Your task to perform on an android device: turn off smart reply in the gmail app Image 0: 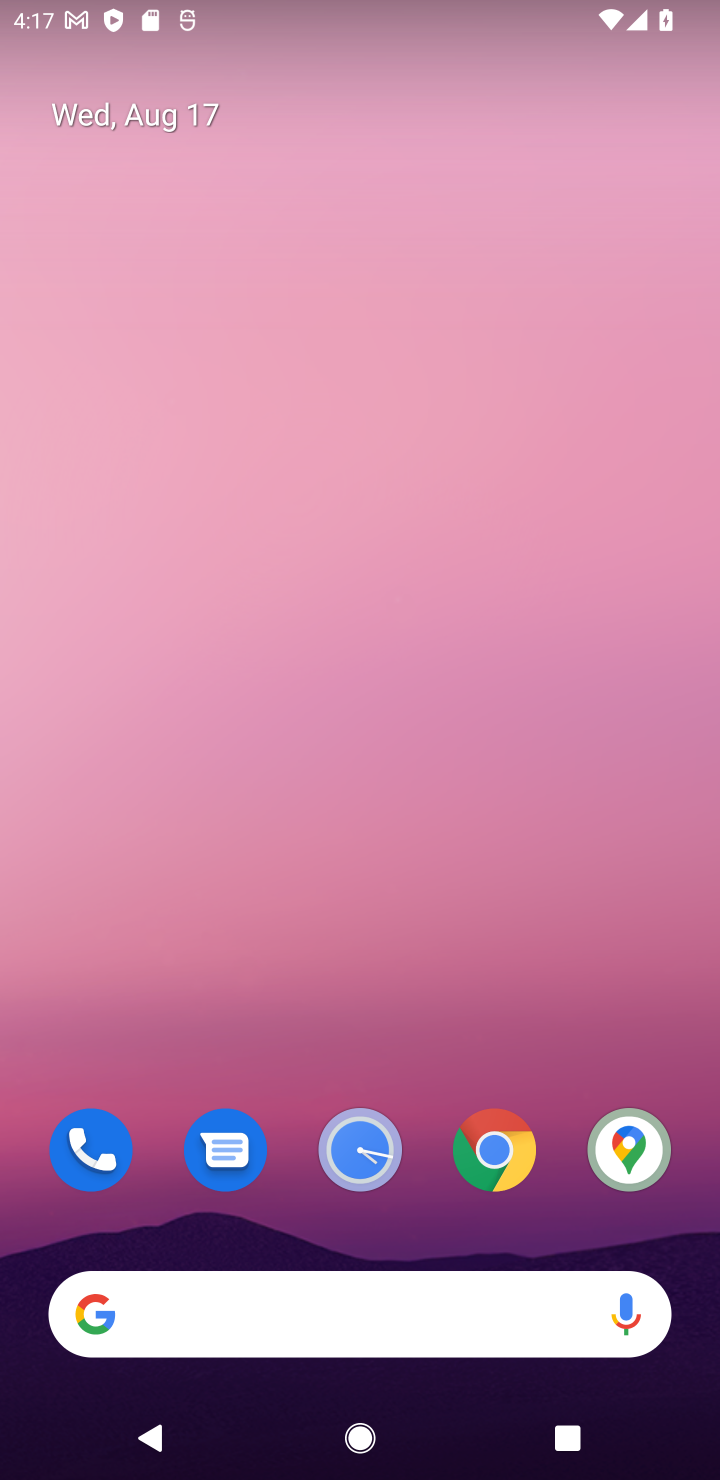
Step 0: drag from (550, 1218) to (380, 45)
Your task to perform on an android device: turn off smart reply in the gmail app Image 1: 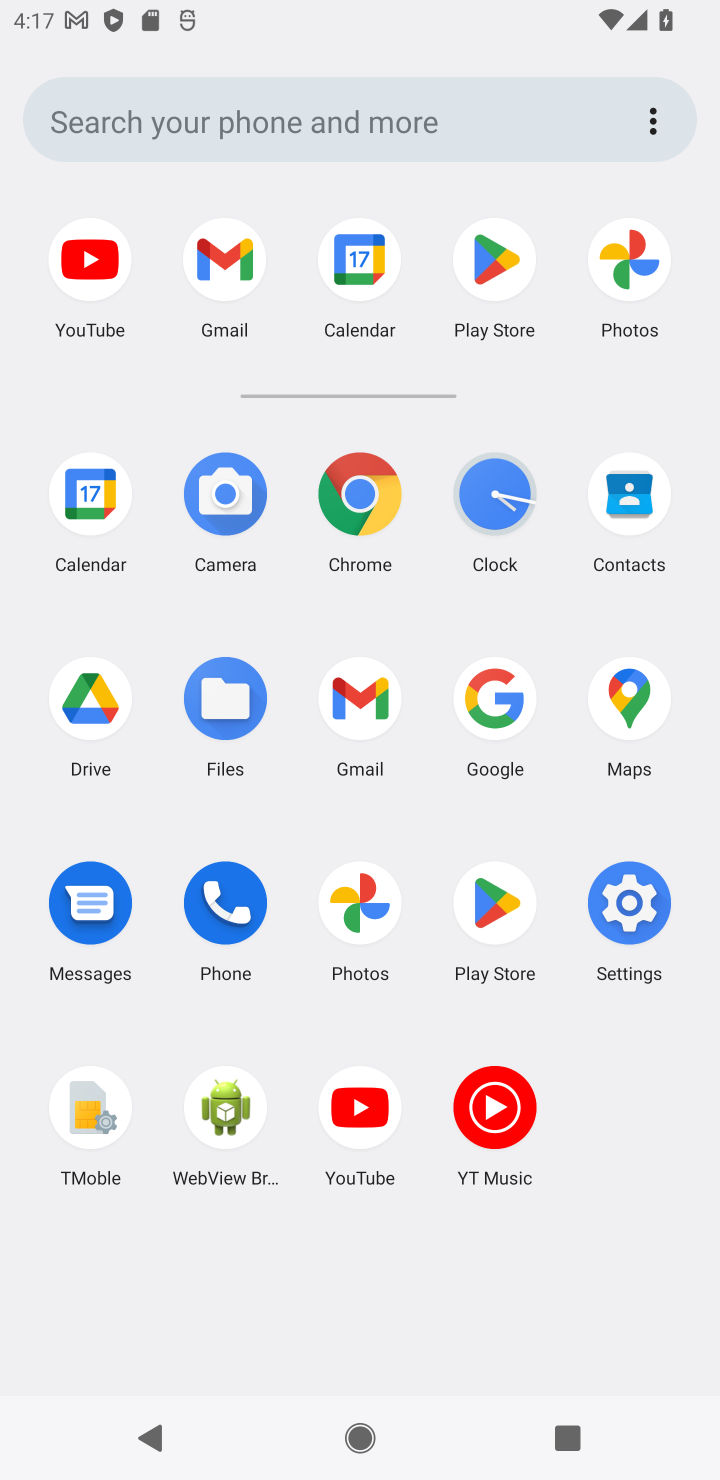
Step 1: click (362, 711)
Your task to perform on an android device: turn off smart reply in the gmail app Image 2: 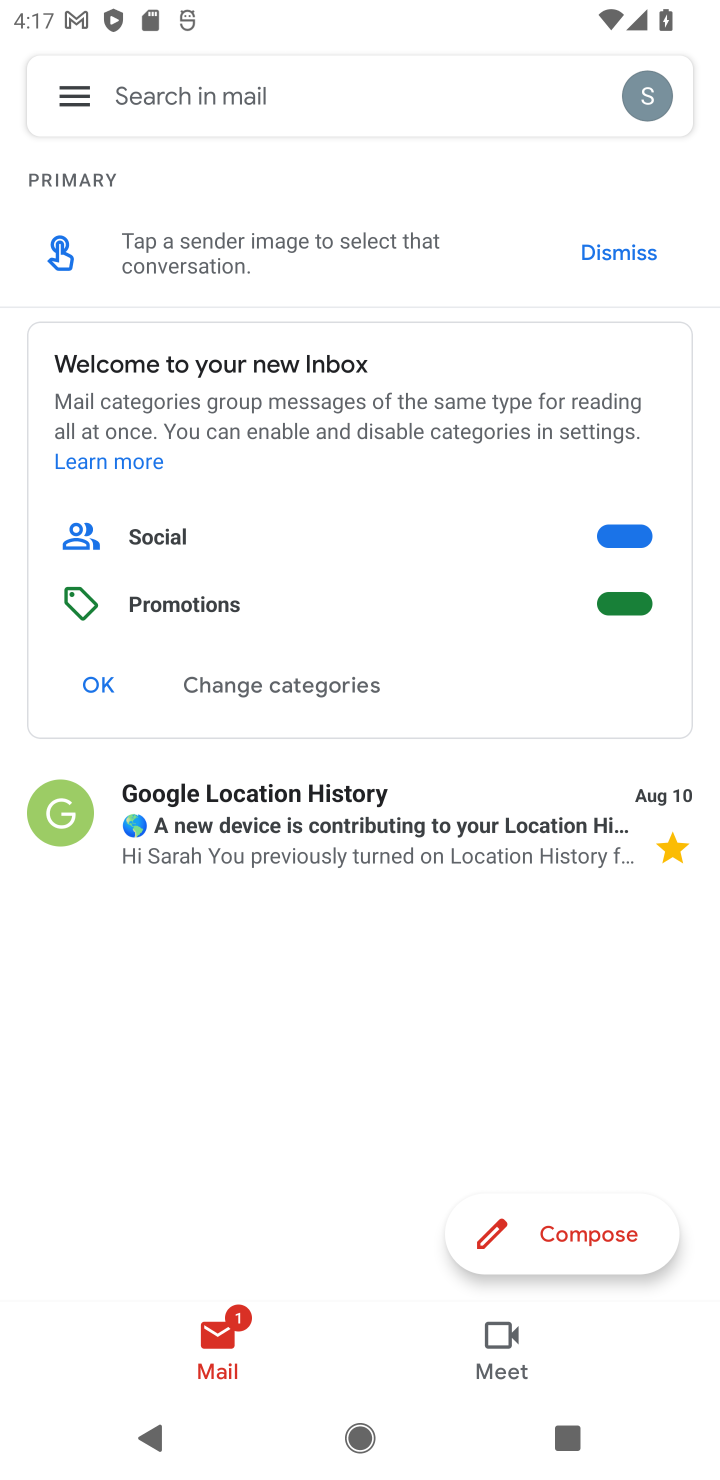
Step 2: click (76, 98)
Your task to perform on an android device: turn off smart reply in the gmail app Image 3: 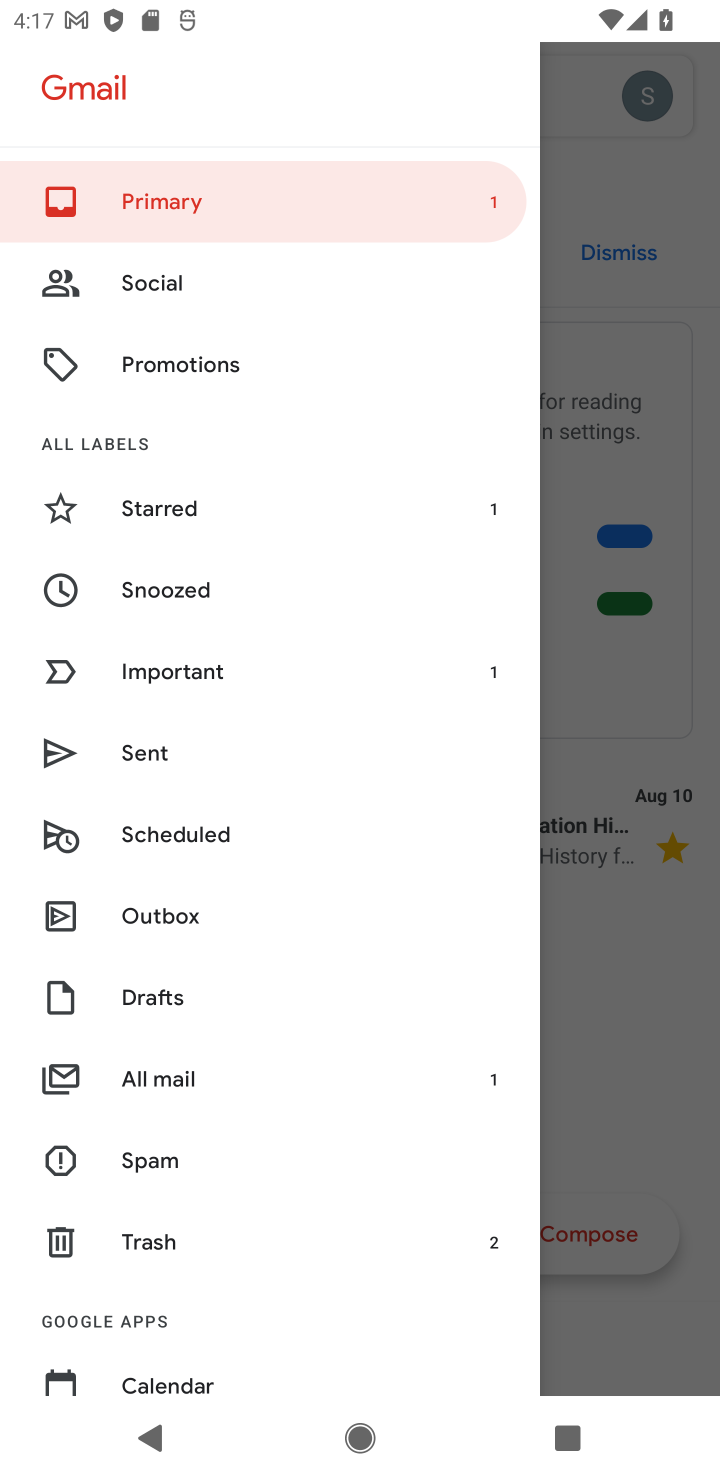
Step 3: drag from (123, 1203) to (309, 21)
Your task to perform on an android device: turn off smart reply in the gmail app Image 4: 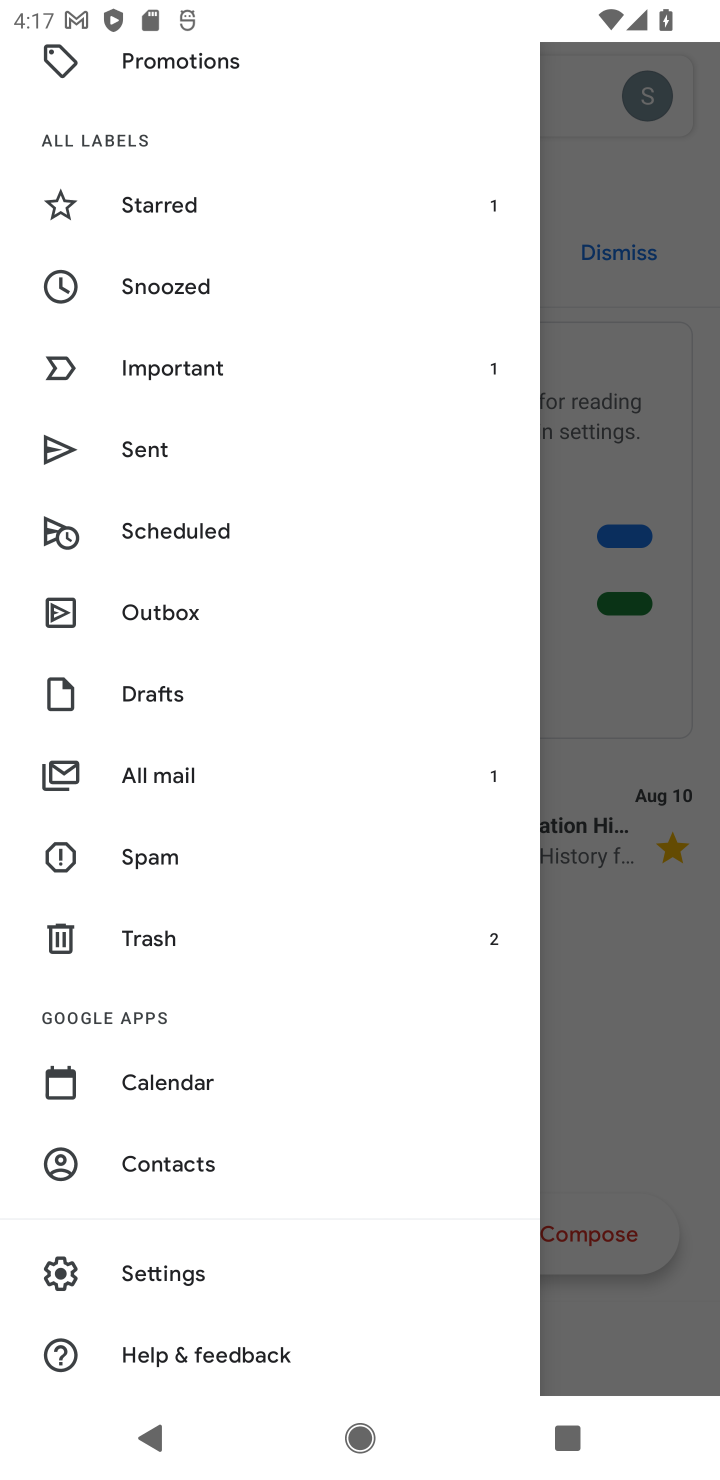
Step 4: click (218, 1283)
Your task to perform on an android device: turn off smart reply in the gmail app Image 5: 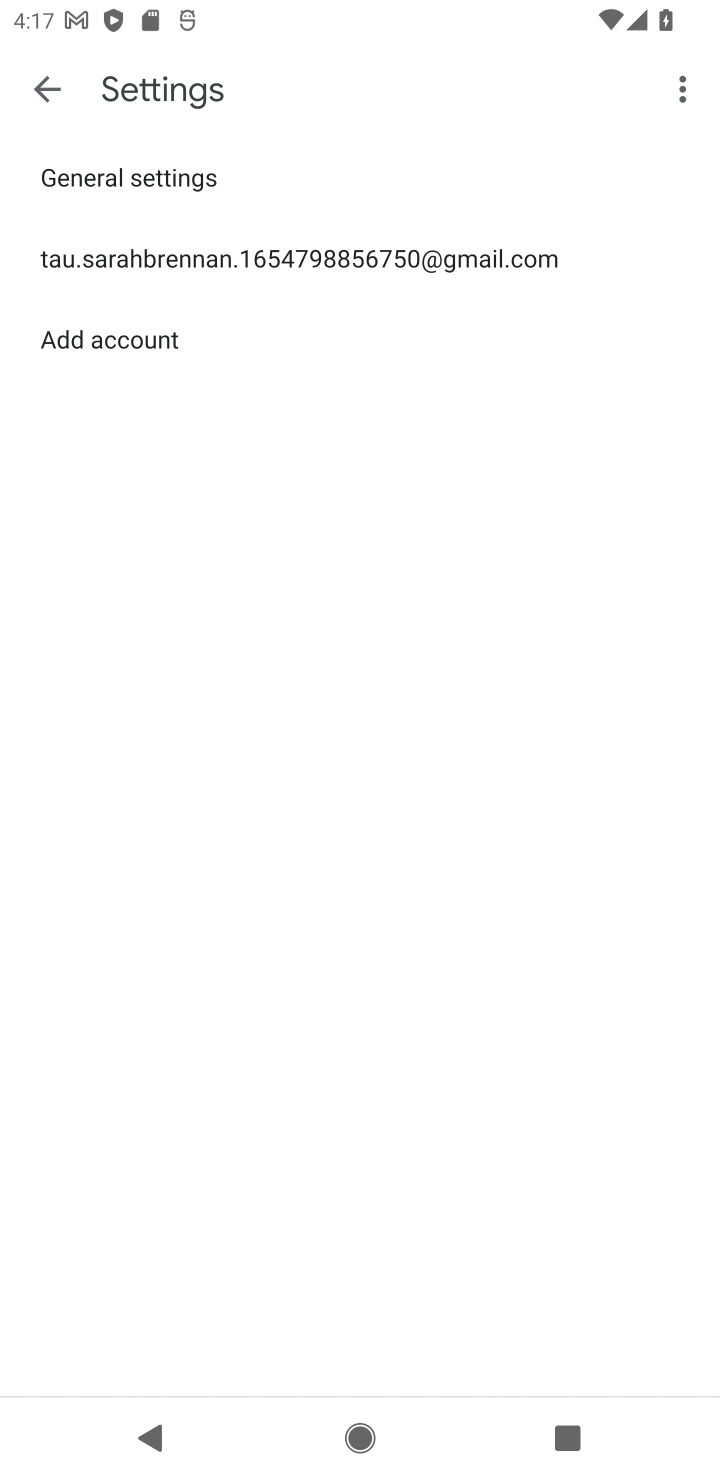
Step 5: click (426, 276)
Your task to perform on an android device: turn off smart reply in the gmail app Image 6: 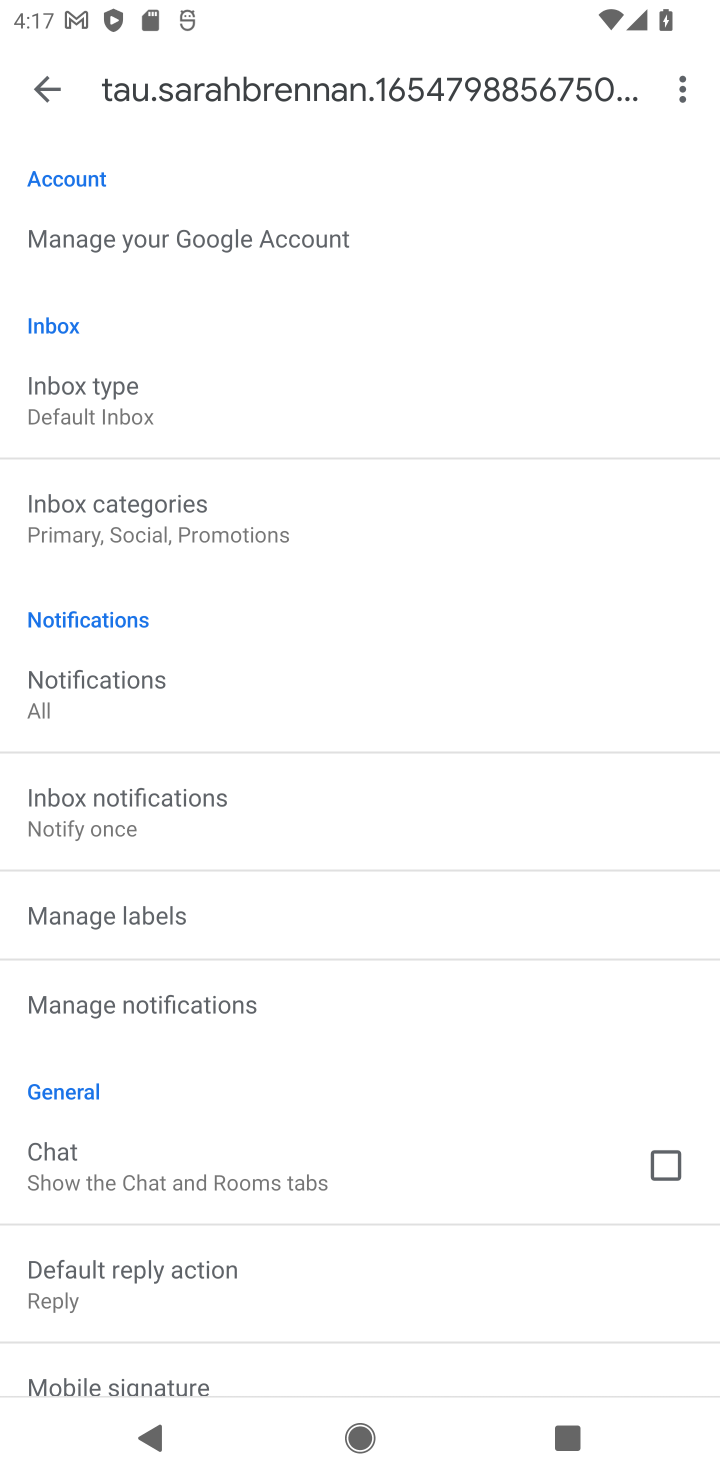
Step 6: drag from (125, 1286) to (289, 183)
Your task to perform on an android device: turn off smart reply in the gmail app Image 7: 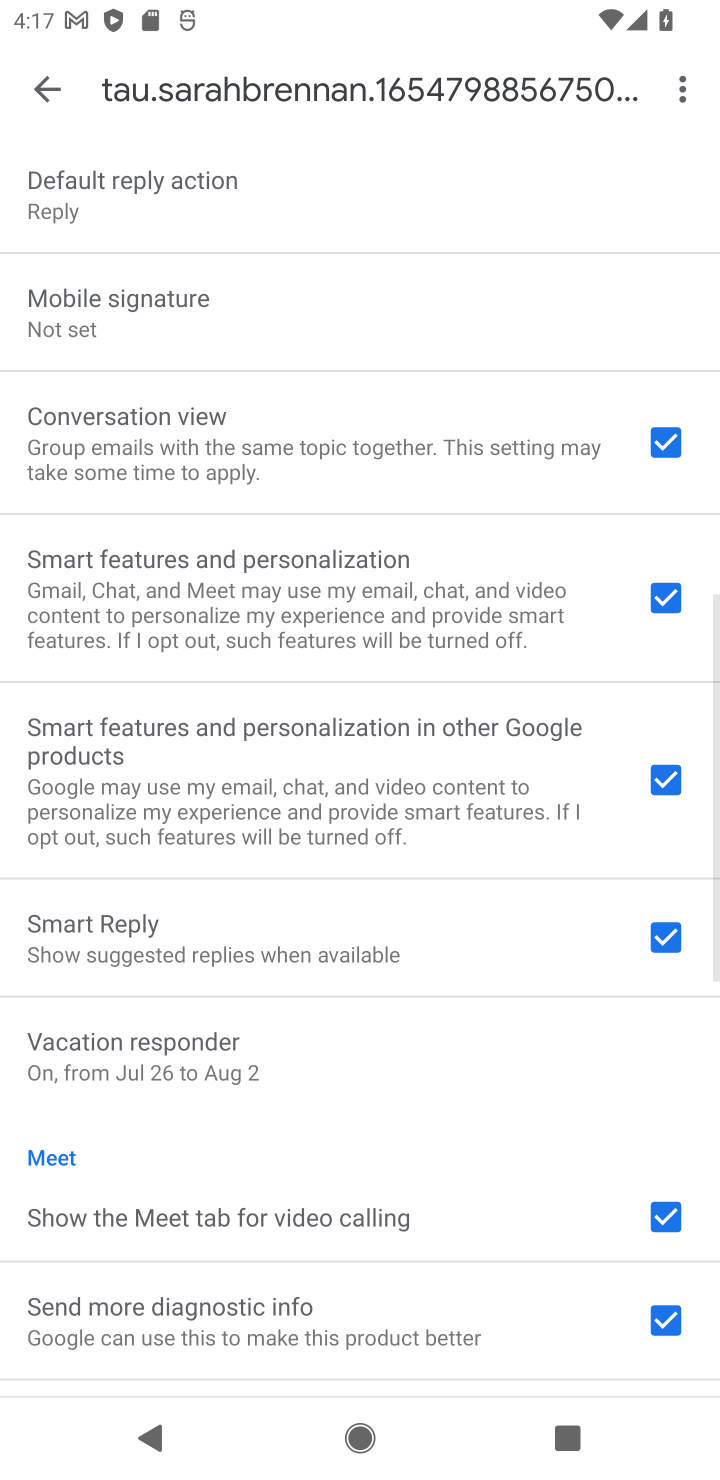
Step 7: drag from (253, 1167) to (294, 491)
Your task to perform on an android device: turn off smart reply in the gmail app Image 8: 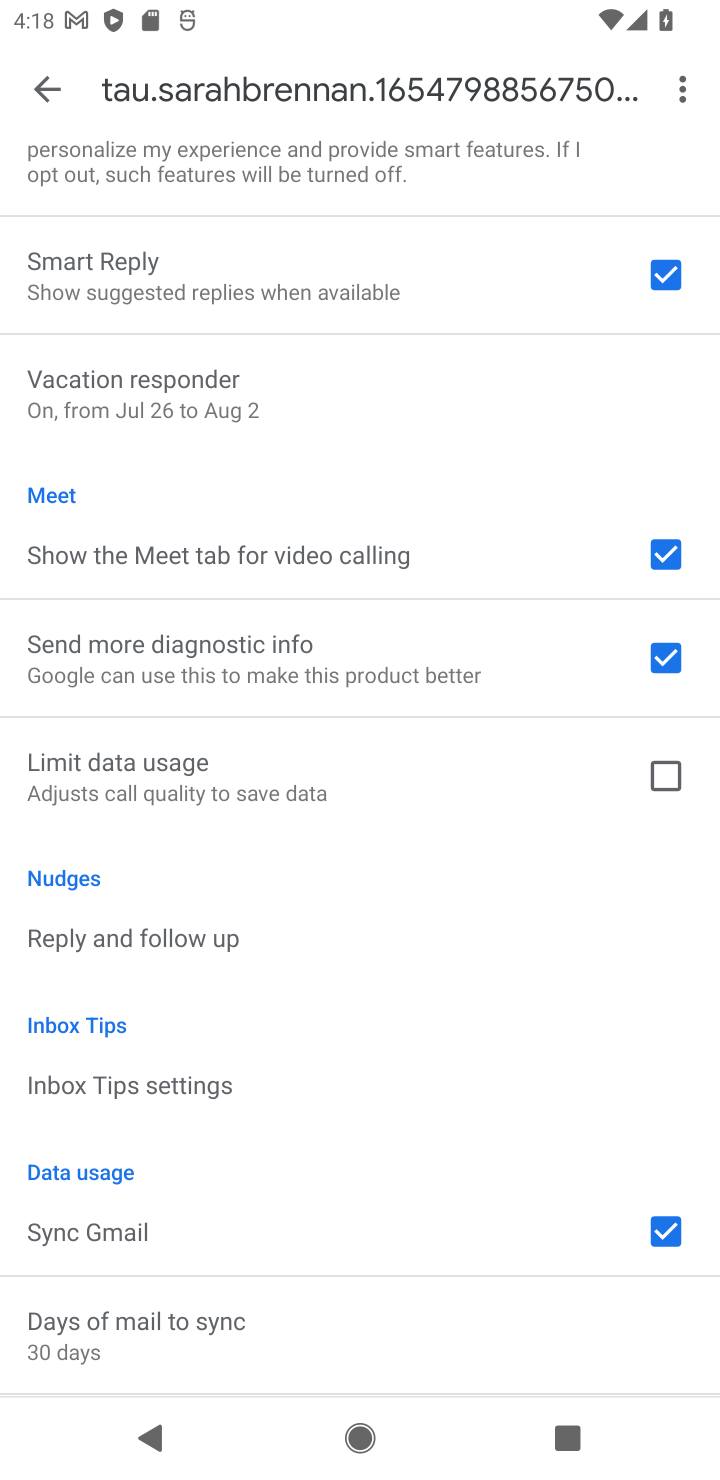
Step 8: click (475, 252)
Your task to perform on an android device: turn off smart reply in the gmail app Image 9: 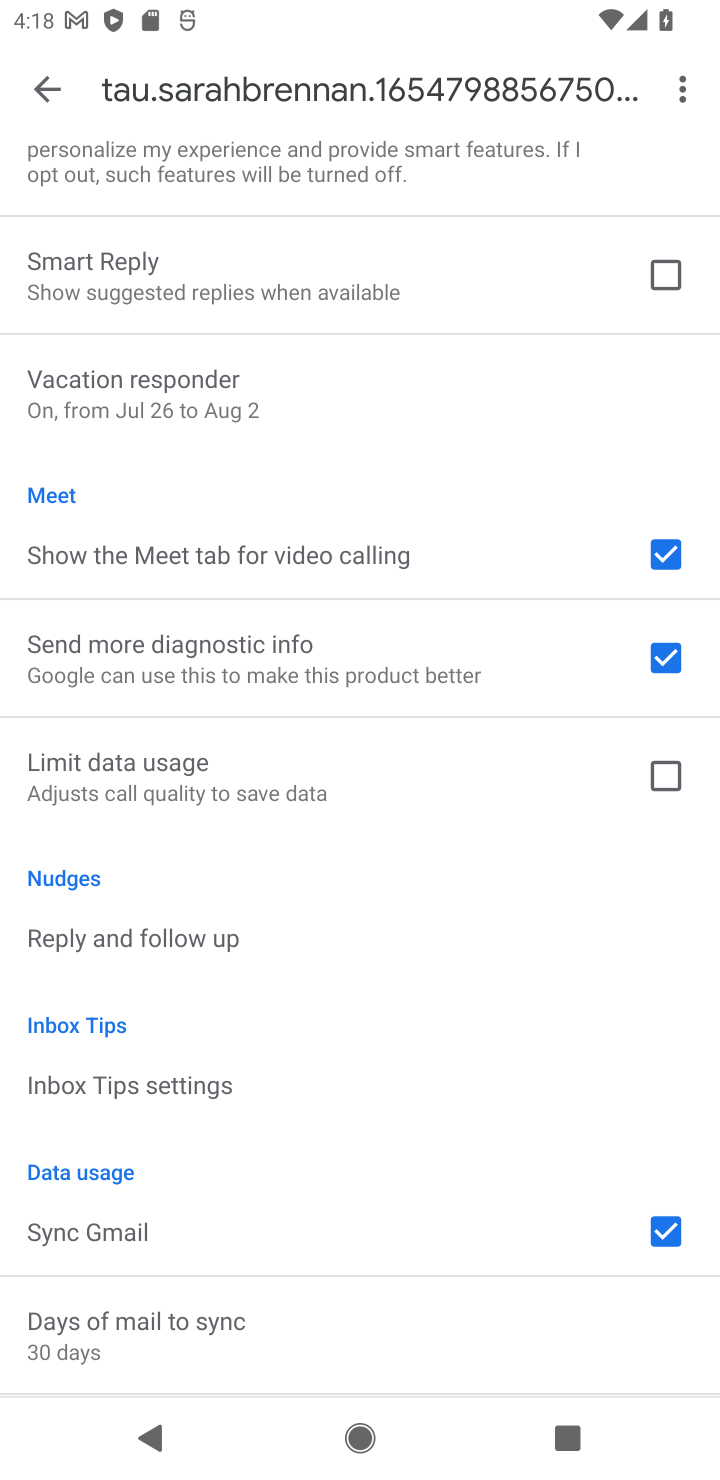
Step 9: task complete